Your task to perform on an android device: turn vacation reply on in the gmail app Image 0: 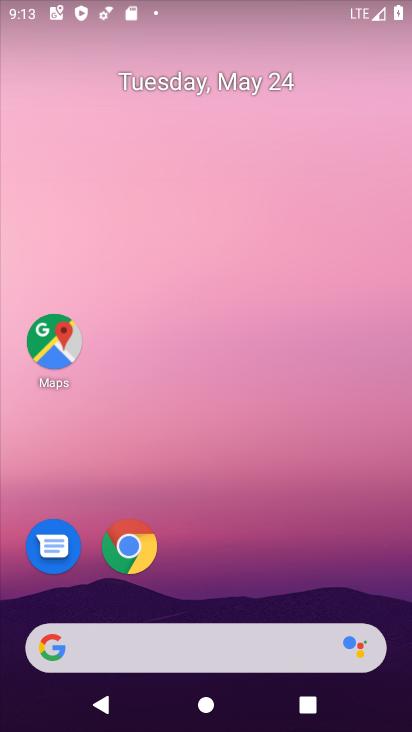
Step 0: drag from (319, 472) to (365, 38)
Your task to perform on an android device: turn vacation reply on in the gmail app Image 1: 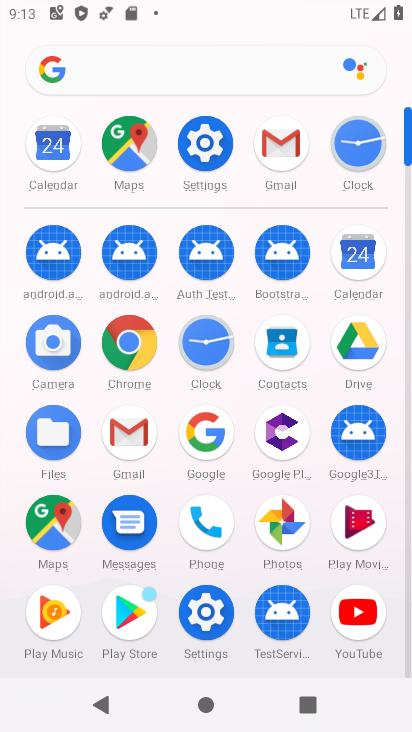
Step 1: click (296, 150)
Your task to perform on an android device: turn vacation reply on in the gmail app Image 2: 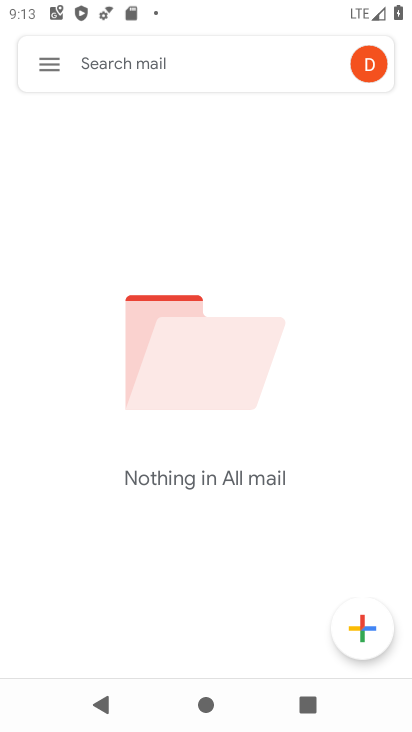
Step 2: click (43, 63)
Your task to perform on an android device: turn vacation reply on in the gmail app Image 3: 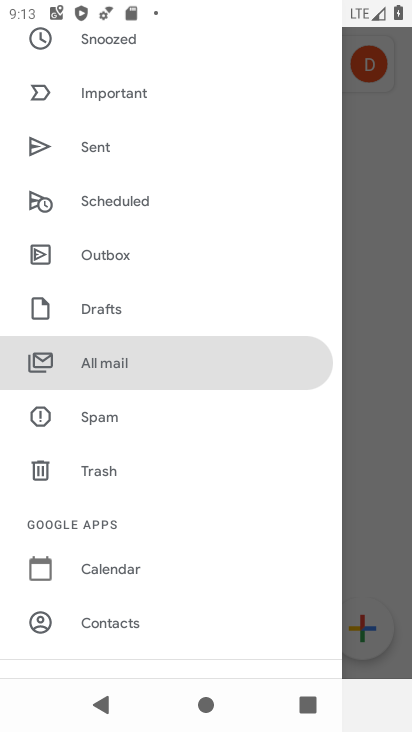
Step 3: drag from (228, 481) to (225, 219)
Your task to perform on an android device: turn vacation reply on in the gmail app Image 4: 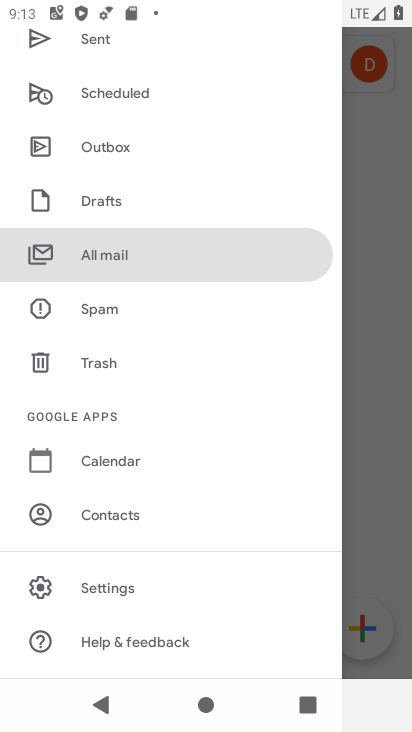
Step 4: click (173, 581)
Your task to perform on an android device: turn vacation reply on in the gmail app Image 5: 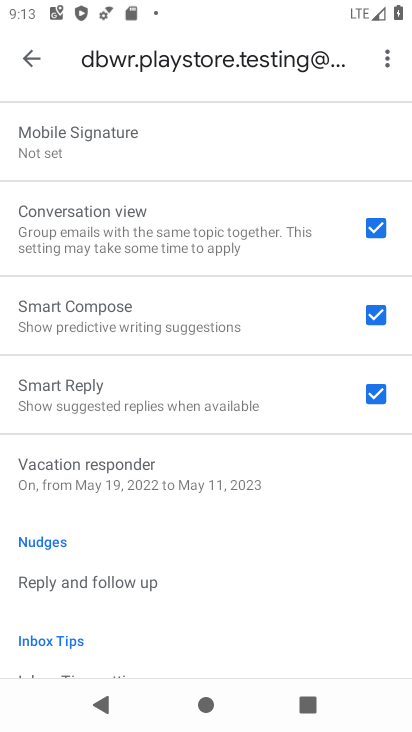
Step 5: click (231, 467)
Your task to perform on an android device: turn vacation reply on in the gmail app Image 6: 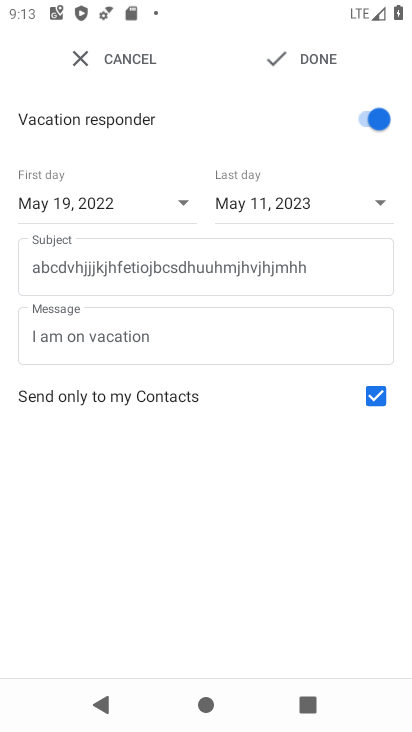
Step 6: task complete